Your task to perform on an android device: turn on priority inbox in the gmail app Image 0: 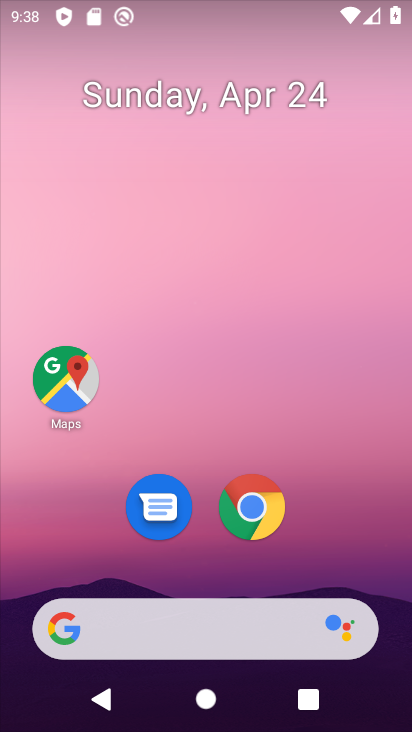
Step 0: drag from (162, 528) to (229, 125)
Your task to perform on an android device: turn on priority inbox in the gmail app Image 1: 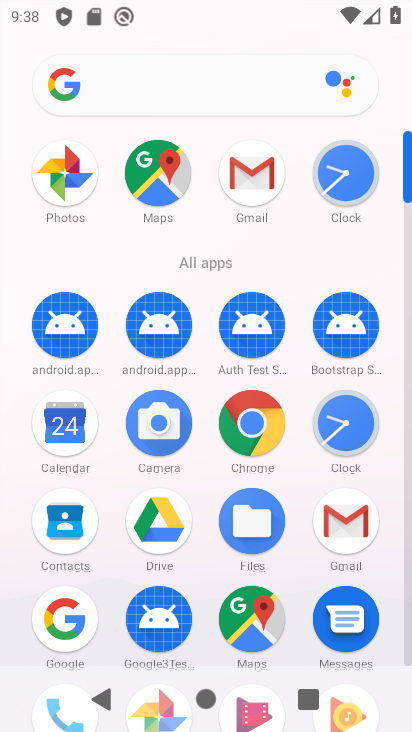
Step 1: click (245, 168)
Your task to perform on an android device: turn on priority inbox in the gmail app Image 2: 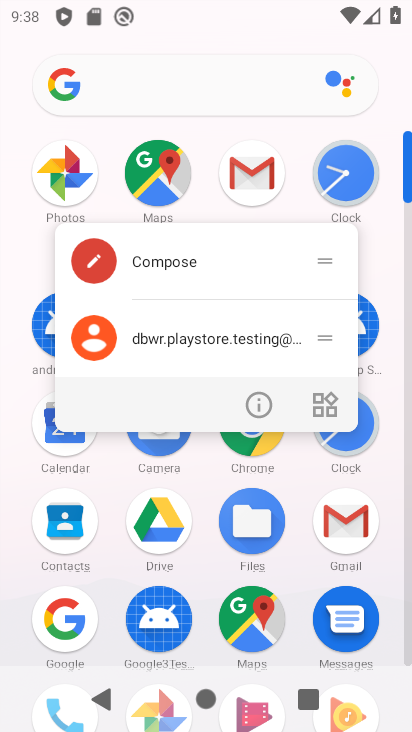
Step 2: click (243, 175)
Your task to perform on an android device: turn on priority inbox in the gmail app Image 3: 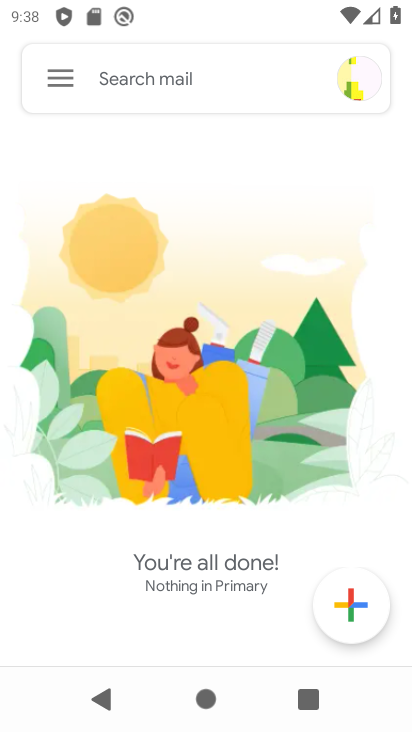
Step 3: click (49, 79)
Your task to perform on an android device: turn on priority inbox in the gmail app Image 4: 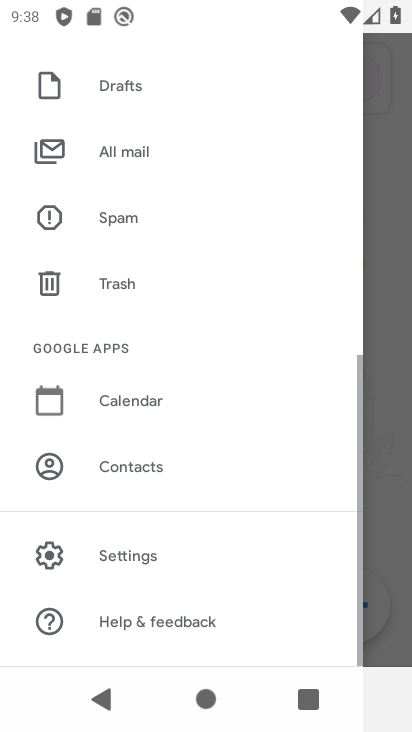
Step 4: click (186, 548)
Your task to perform on an android device: turn on priority inbox in the gmail app Image 5: 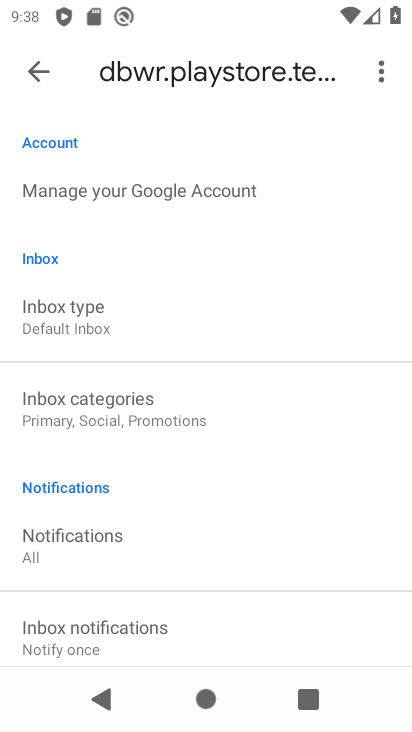
Step 5: task complete